Your task to perform on an android device: Open sound settings Image 0: 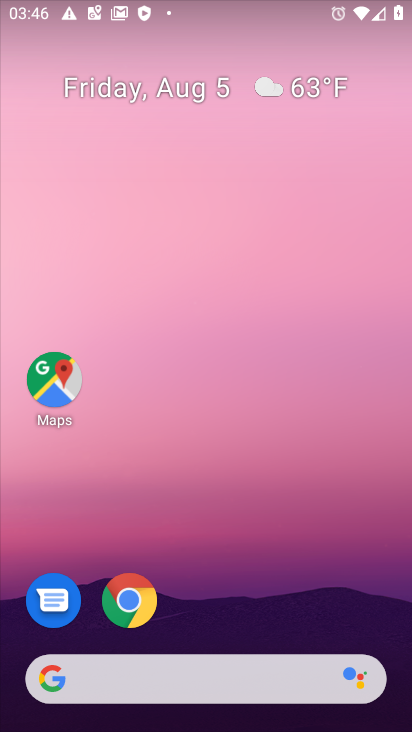
Step 0: drag from (227, 678) to (336, 38)
Your task to perform on an android device: Open sound settings Image 1: 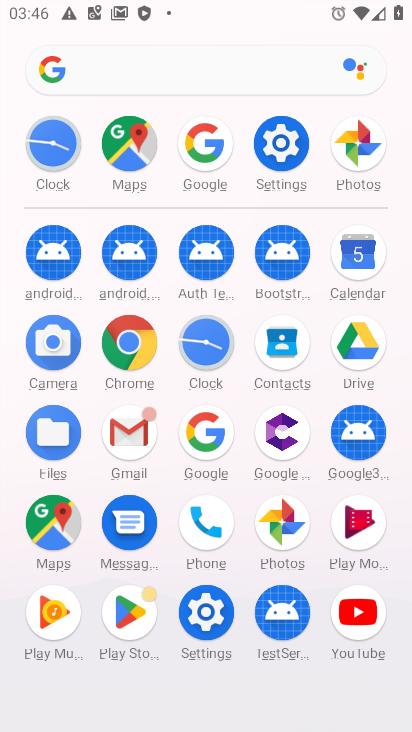
Step 1: click (280, 140)
Your task to perform on an android device: Open sound settings Image 2: 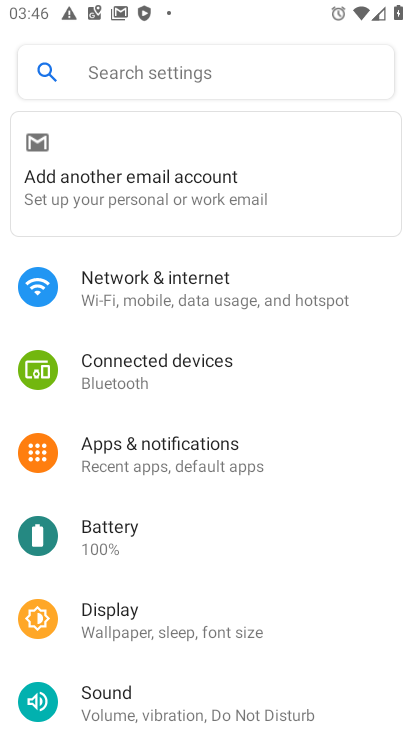
Step 2: click (98, 696)
Your task to perform on an android device: Open sound settings Image 3: 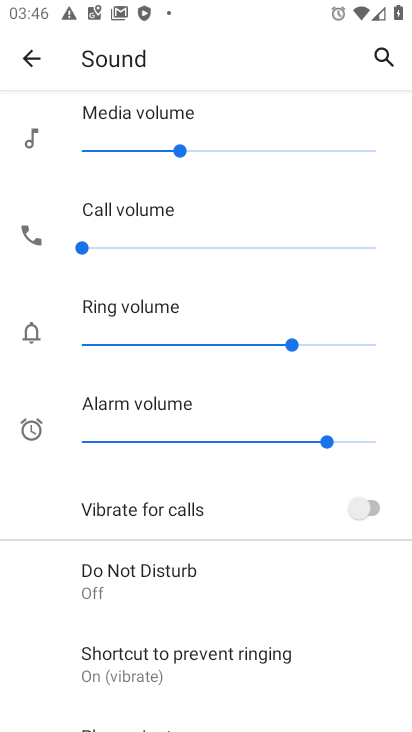
Step 3: task complete